Your task to perform on an android device: change the clock display to show seconds Image 0: 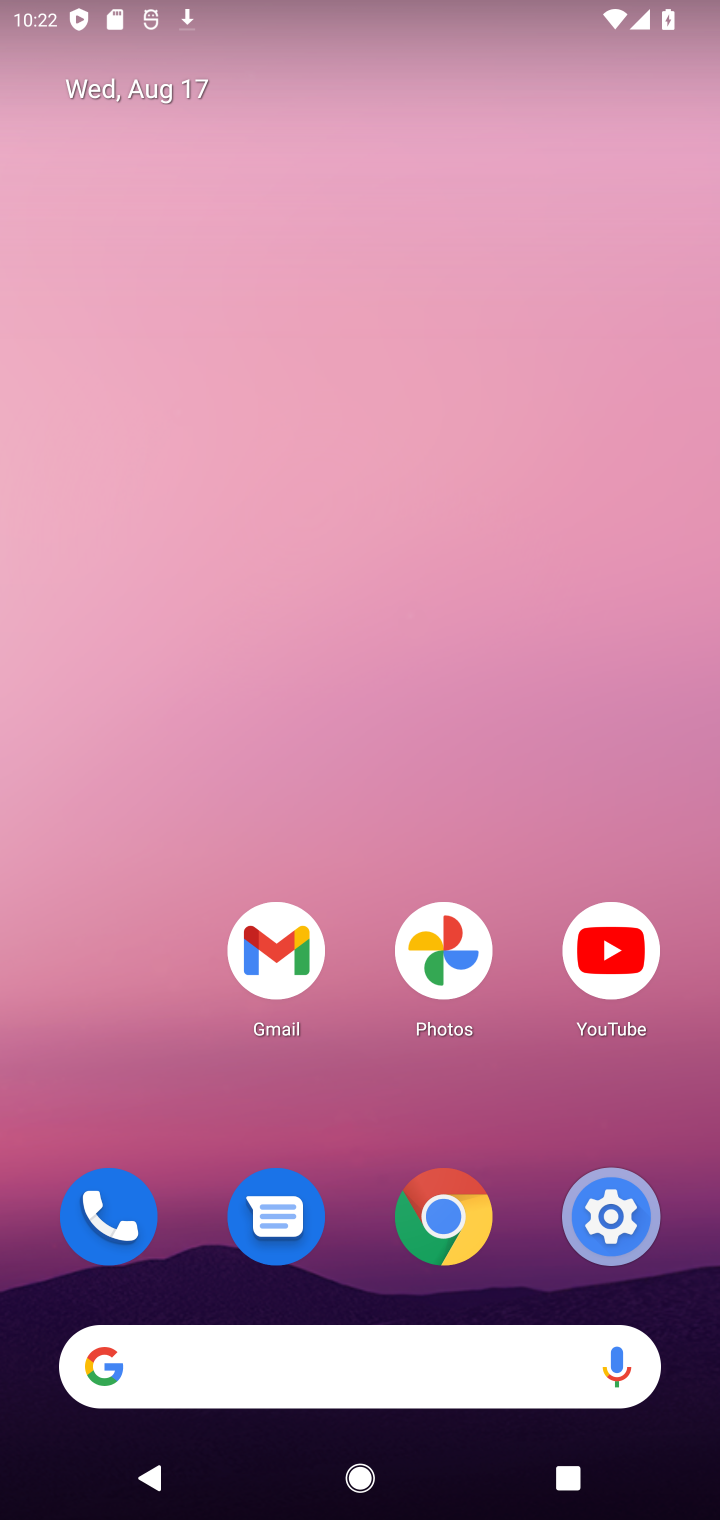
Step 0: drag from (384, 1322) to (404, 183)
Your task to perform on an android device: change the clock display to show seconds Image 1: 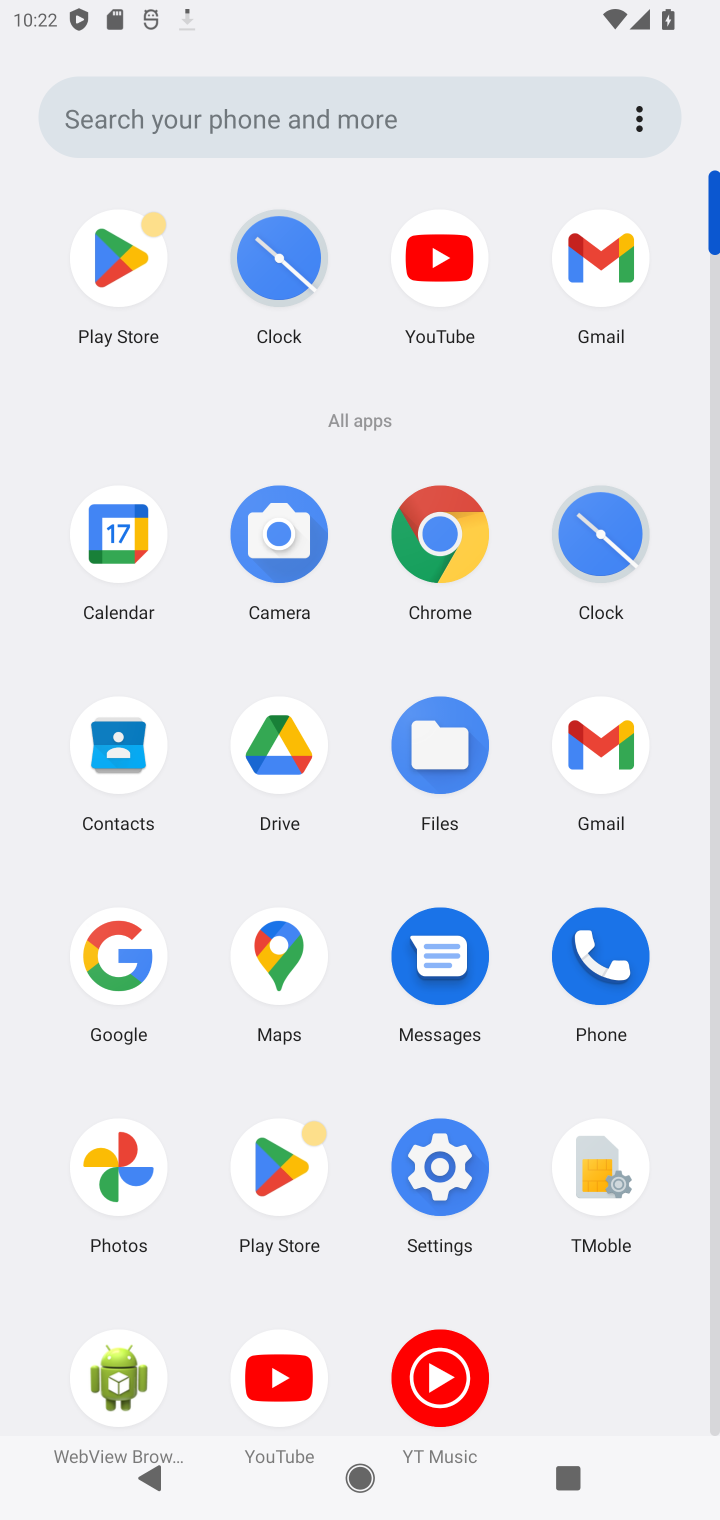
Step 1: click (562, 562)
Your task to perform on an android device: change the clock display to show seconds Image 2: 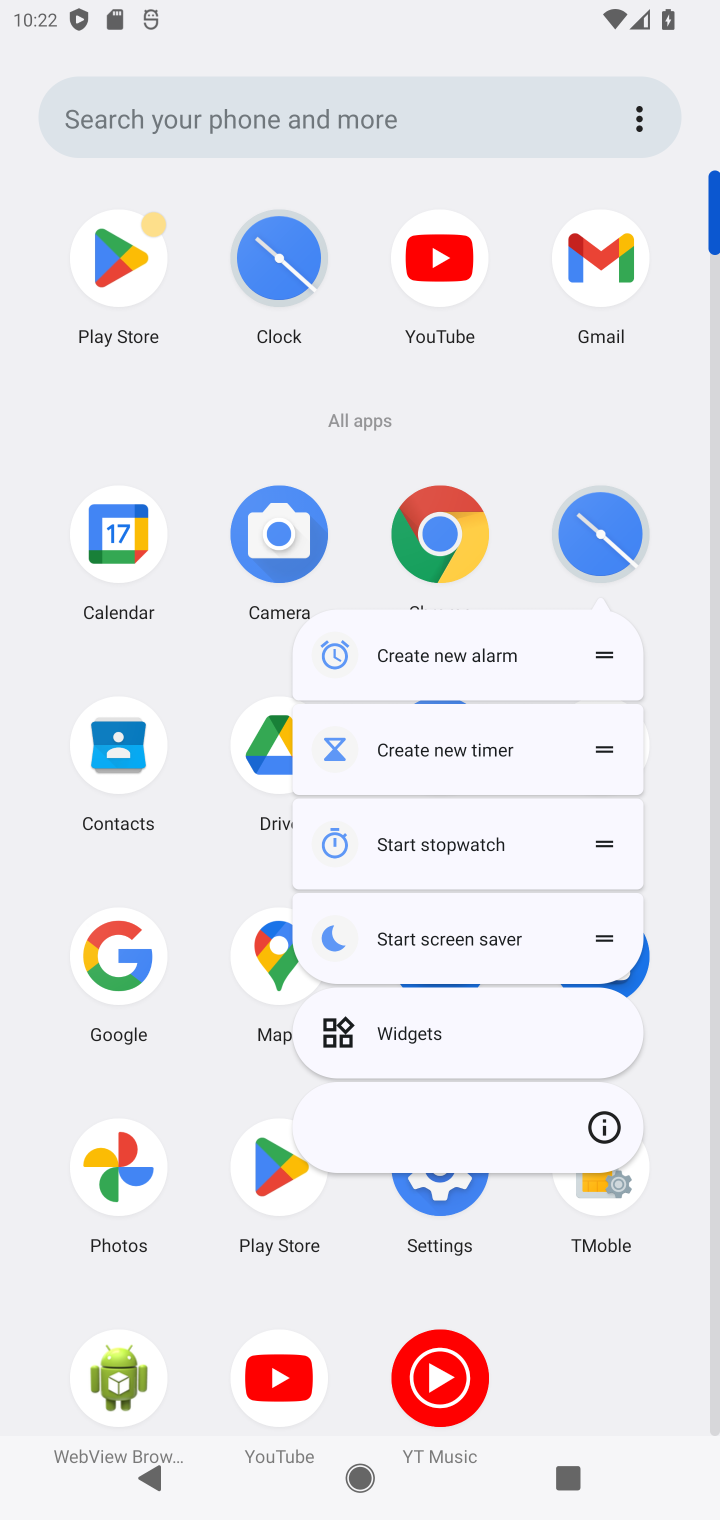
Step 2: click (611, 560)
Your task to perform on an android device: change the clock display to show seconds Image 3: 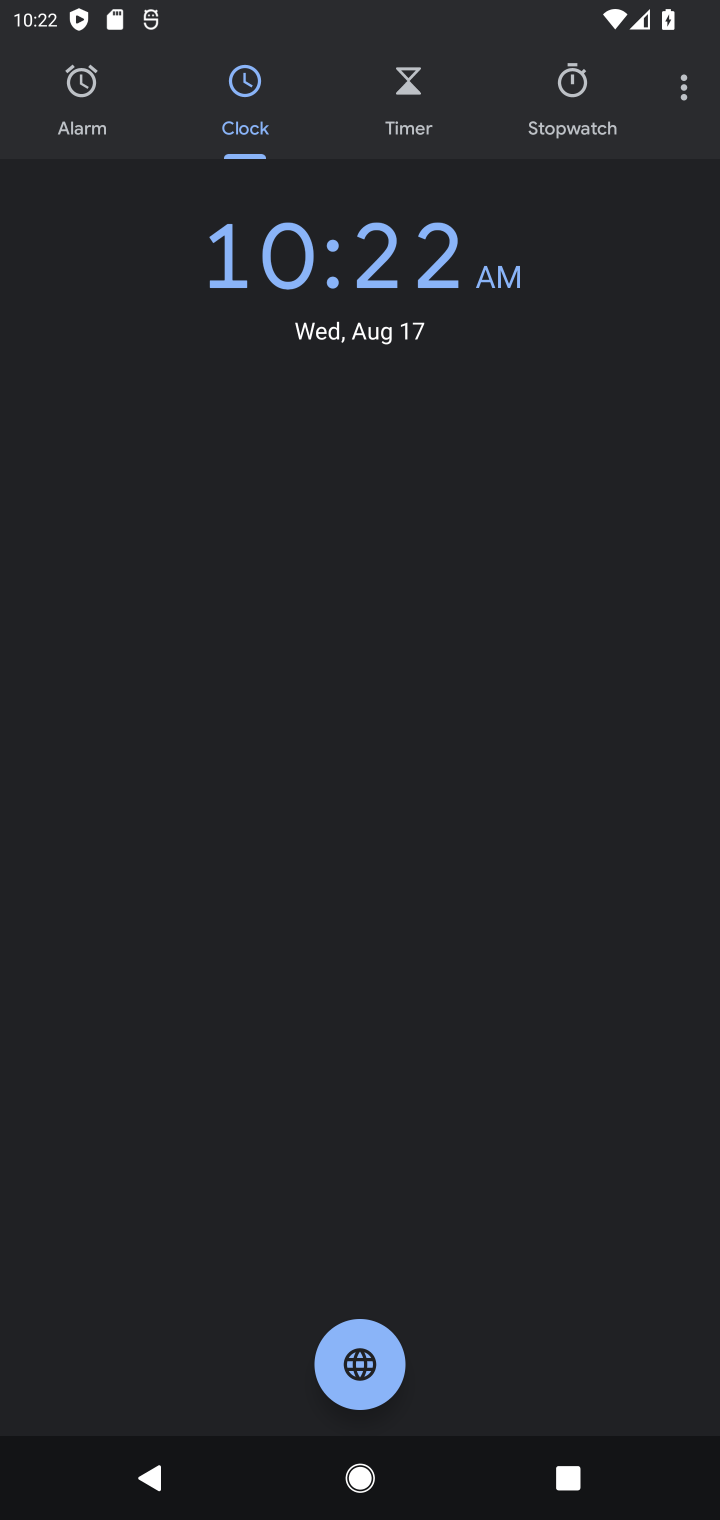
Step 3: click (680, 78)
Your task to perform on an android device: change the clock display to show seconds Image 4: 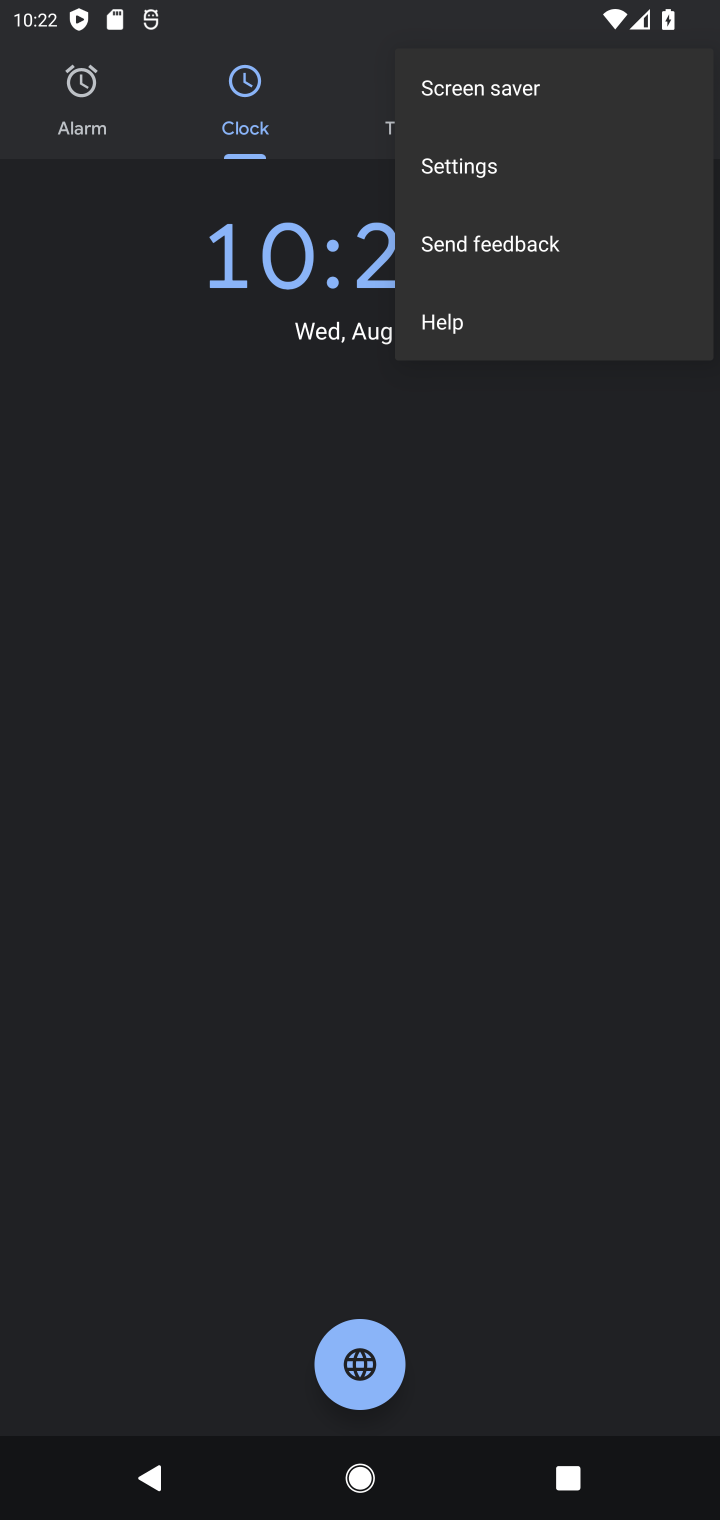
Step 4: click (444, 191)
Your task to perform on an android device: change the clock display to show seconds Image 5: 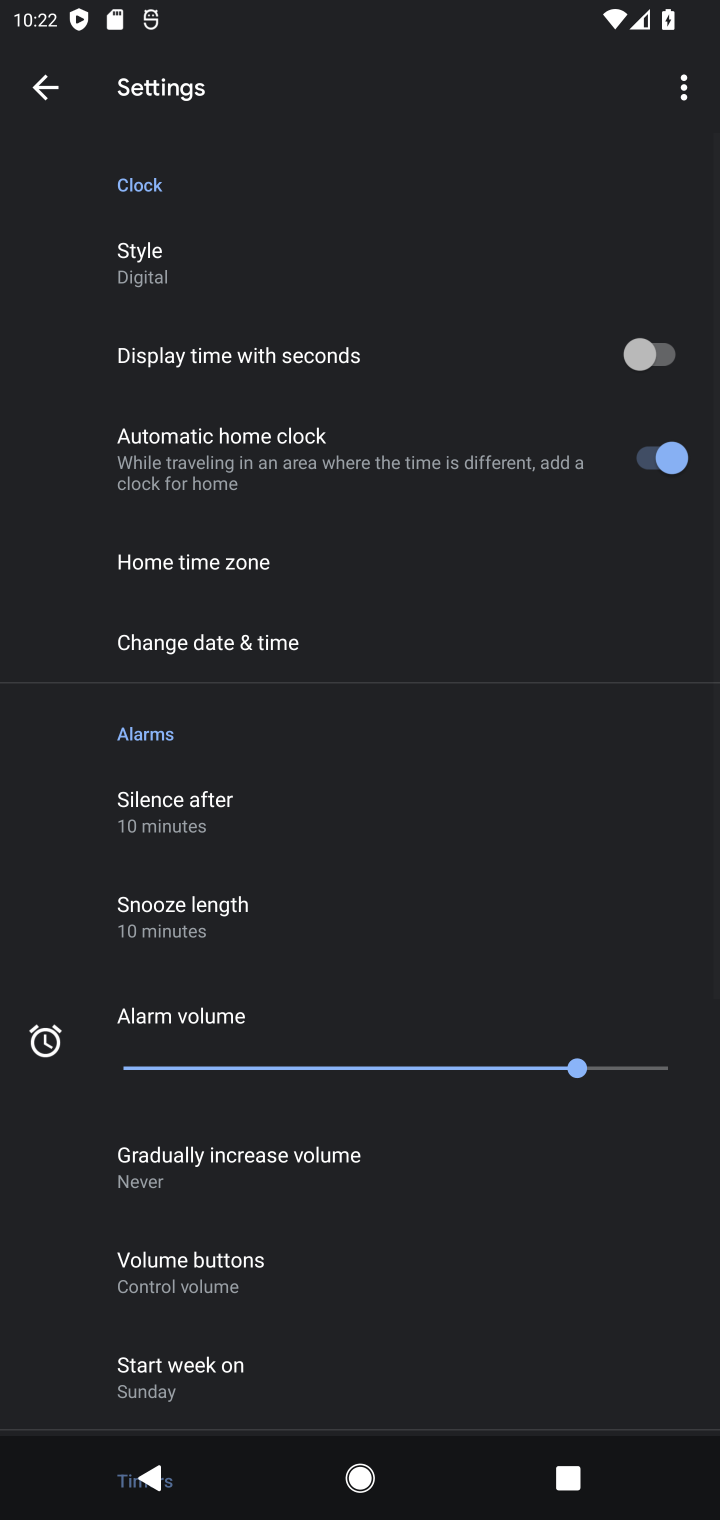
Step 5: click (133, 252)
Your task to perform on an android device: change the clock display to show seconds Image 6: 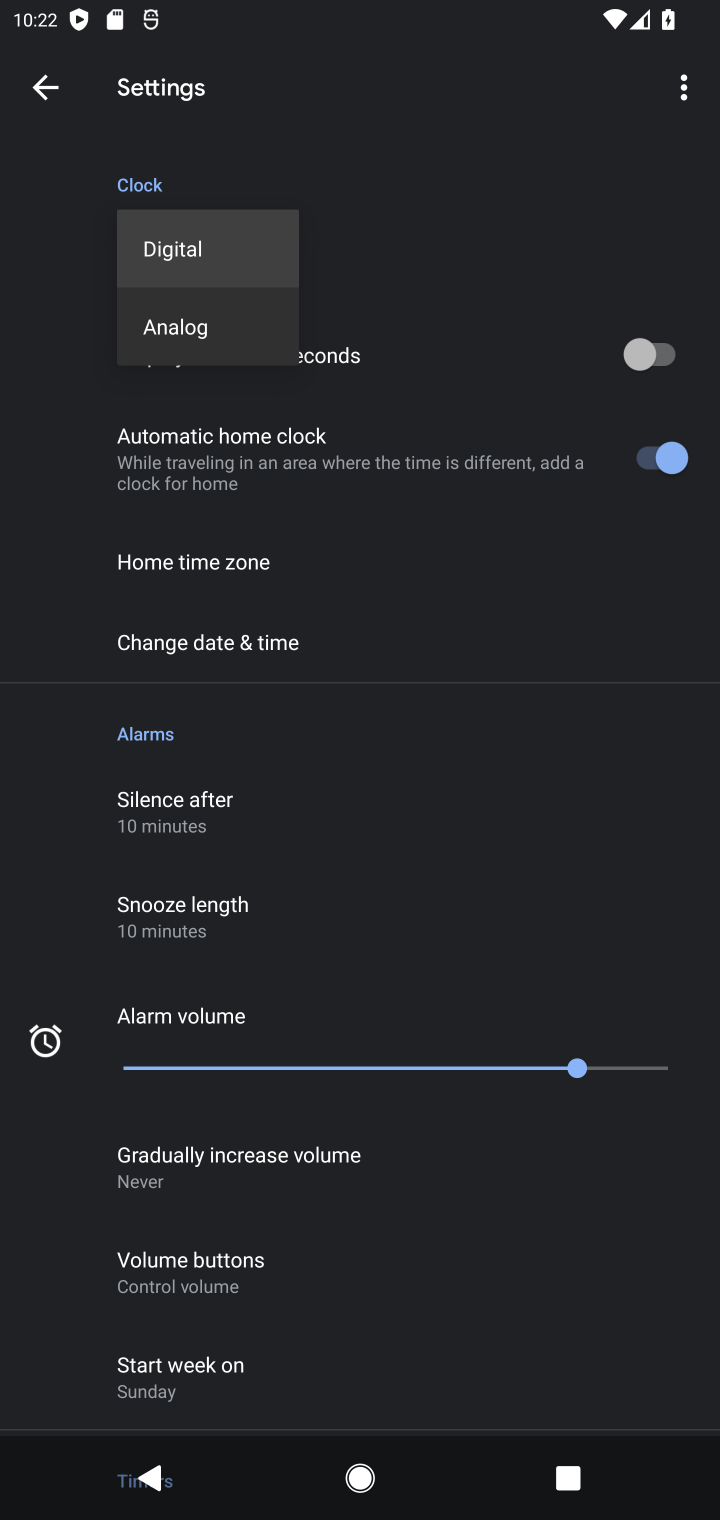
Step 6: click (649, 334)
Your task to perform on an android device: change the clock display to show seconds Image 7: 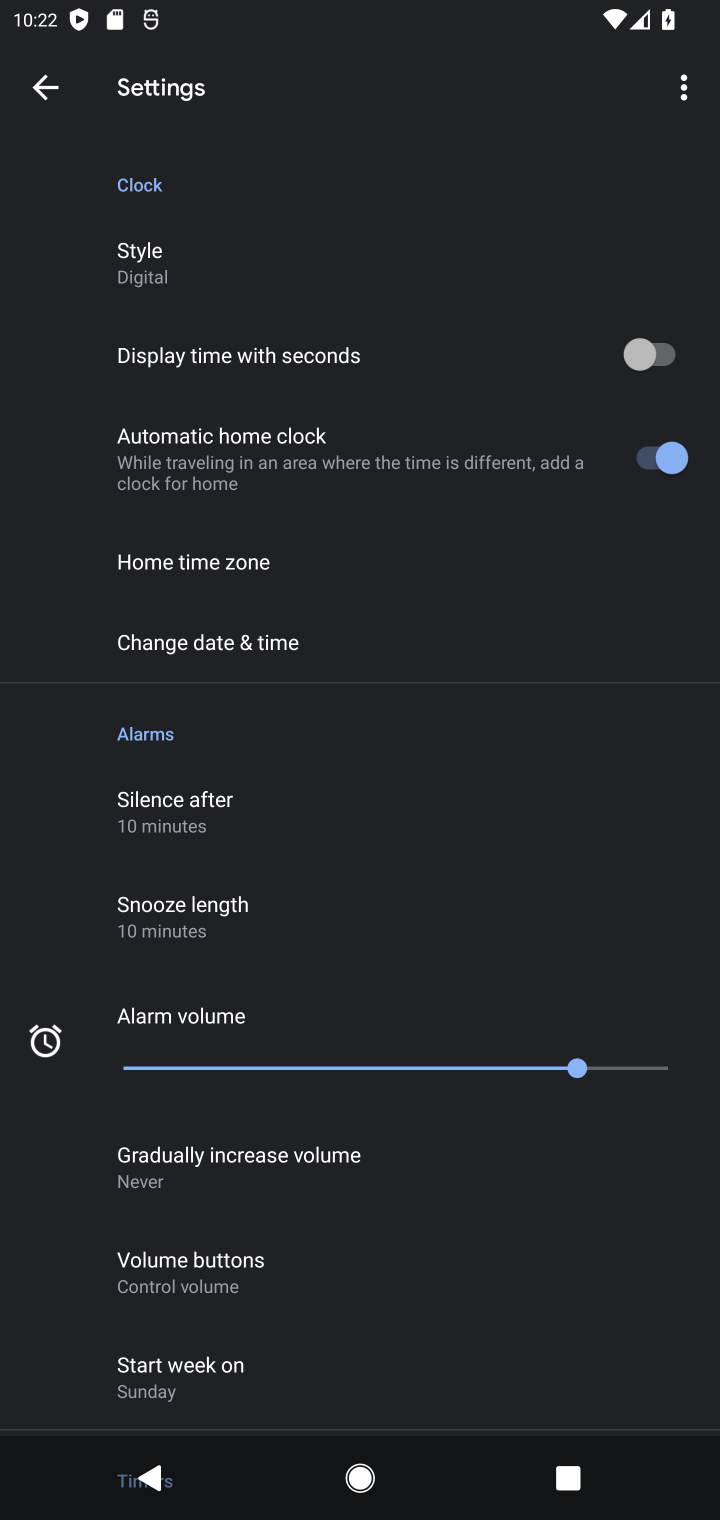
Step 7: click (651, 360)
Your task to perform on an android device: change the clock display to show seconds Image 8: 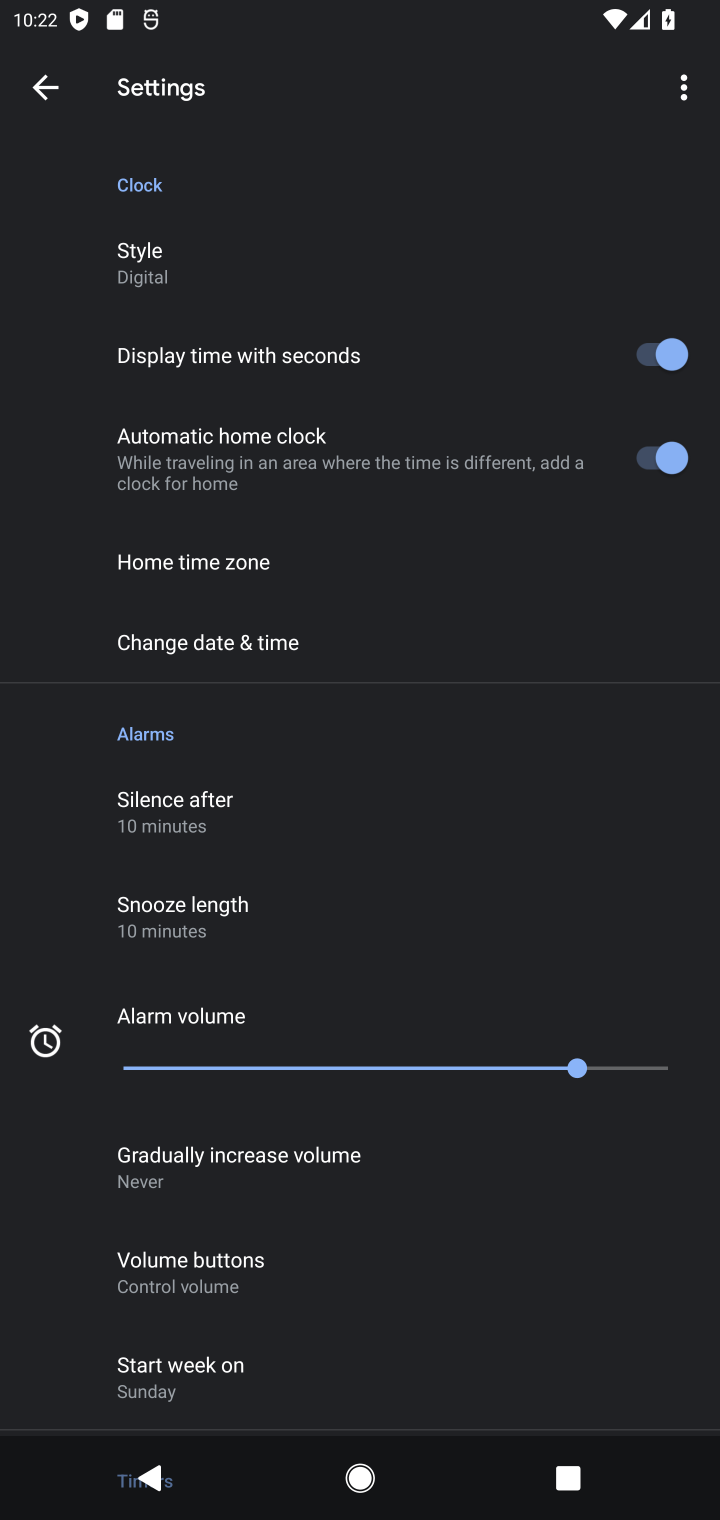
Step 8: task complete